Your task to perform on an android device: find snoozed emails in the gmail app Image 0: 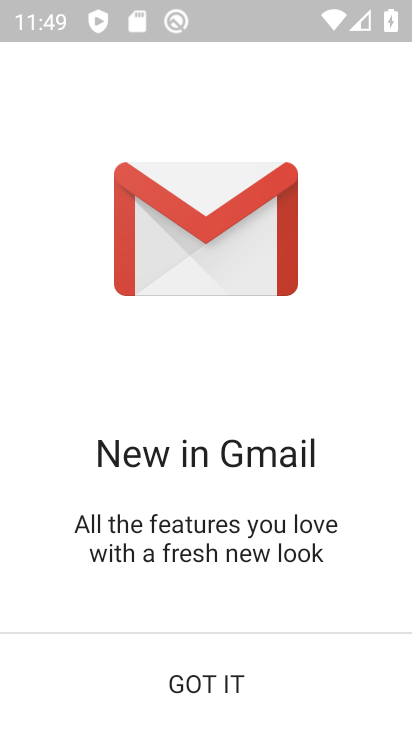
Step 0: press home button
Your task to perform on an android device: find snoozed emails in the gmail app Image 1: 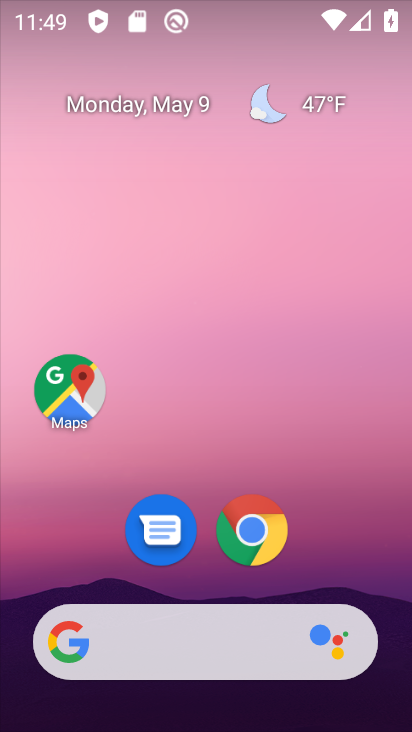
Step 1: drag from (343, 511) to (329, 163)
Your task to perform on an android device: find snoozed emails in the gmail app Image 2: 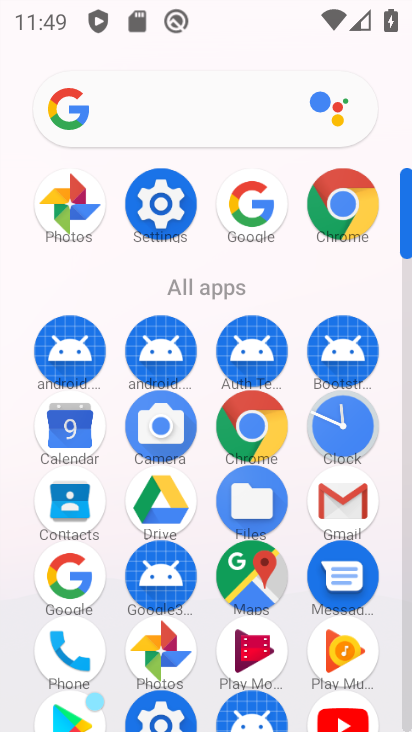
Step 2: click (344, 513)
Your task to perform on an android device: find snoozed emails in the gmail app Image 3: 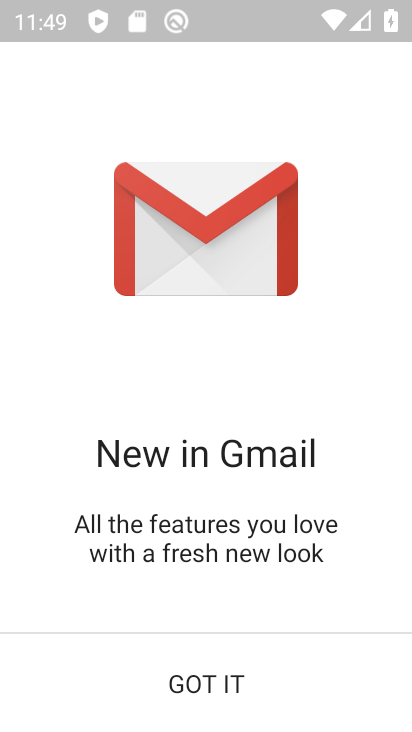
Step 3: click (224, 694)
Your task to perform on an android device: find snoozed emails in the gmail app Image 4: 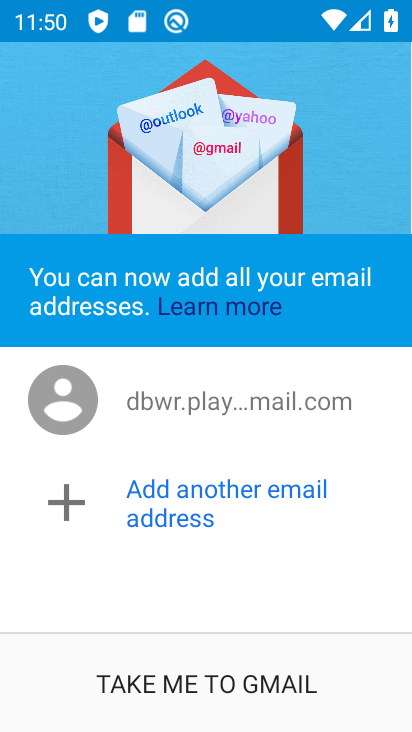
Step 4: click (226, 692)
Your task to perform on an android device: find snoozed emails in the gmail app Image 5: 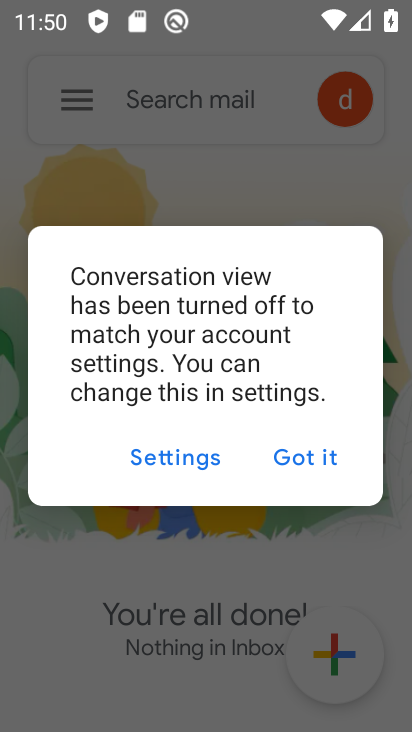
Step 5: click (299, 458)
Your task to perform on an android device: find snoozed emails in the gmail app Image 6: 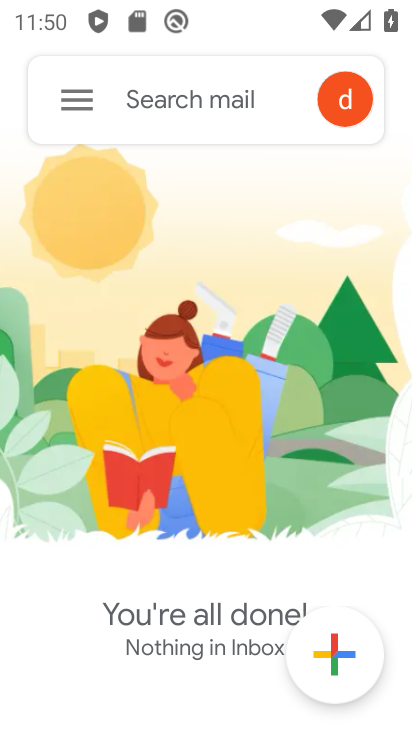
Step 6: click (76, 107)
Your task to perform on an android device: find snoozed emails in the gmail app Image 7: 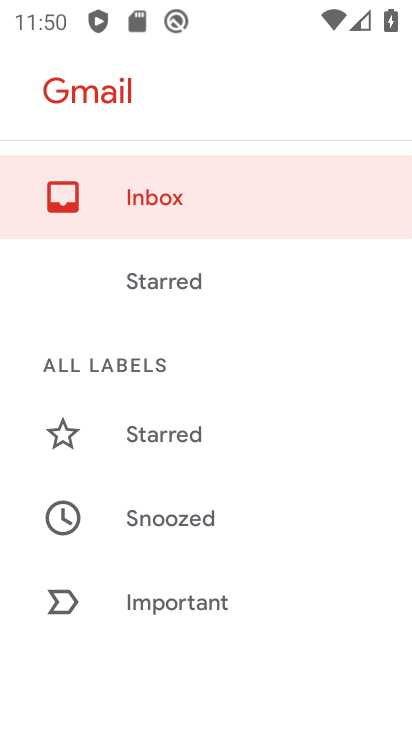
Step 7: click (169, 524)
Your task to perform on an android device: find snoozed emails in the gmail app Image 8: 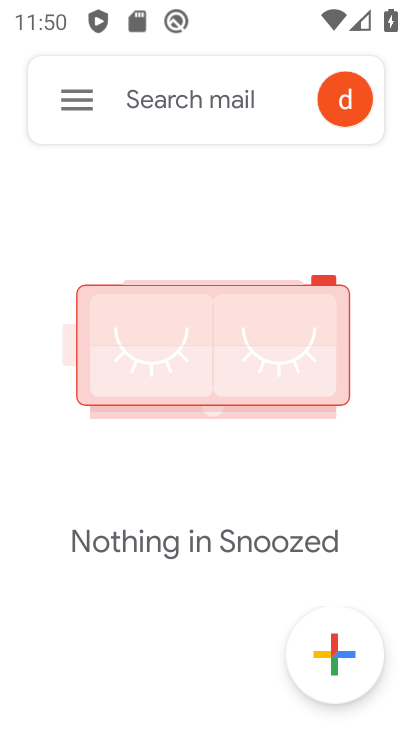
Step 8: task complete